Your task to perform on an android device: Go to calendar. Show me events next week Image 0: 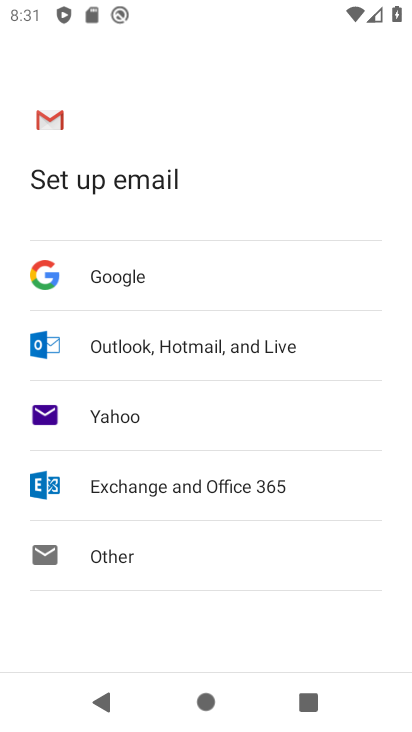
Step 0: press home button
Your task to perform on an android device: Go to calendar. Show me events next week Image 1: 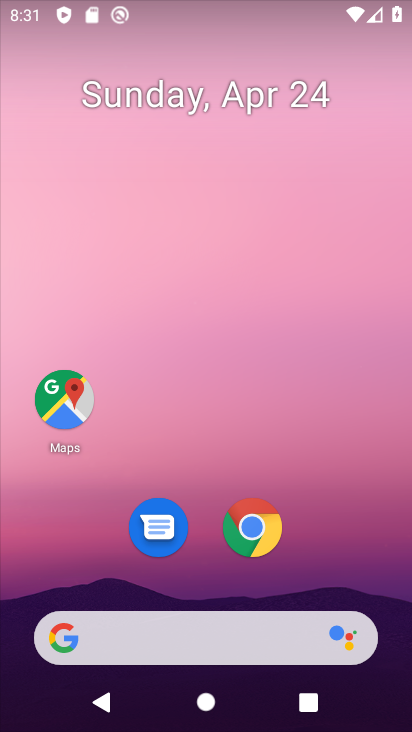
Step 1: drag from (389, 504) to (396, 4)
Your task to perform on an android device: Go to calendar. Show me events next week Image 2: 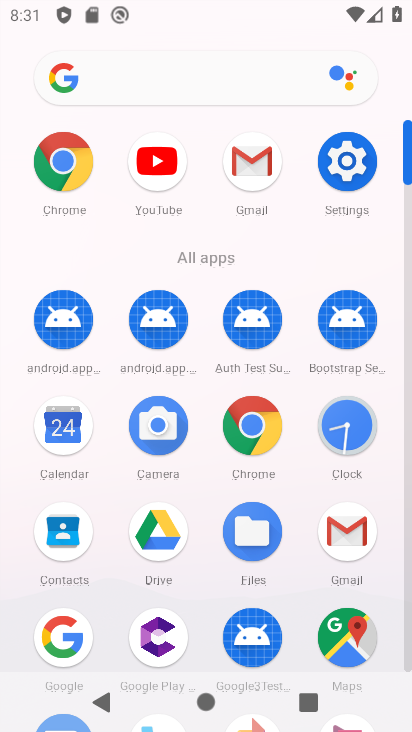
Step 2: click (44, 437)
Your task to perform on an android device: Go to calendar. Show me events next week Image 3: 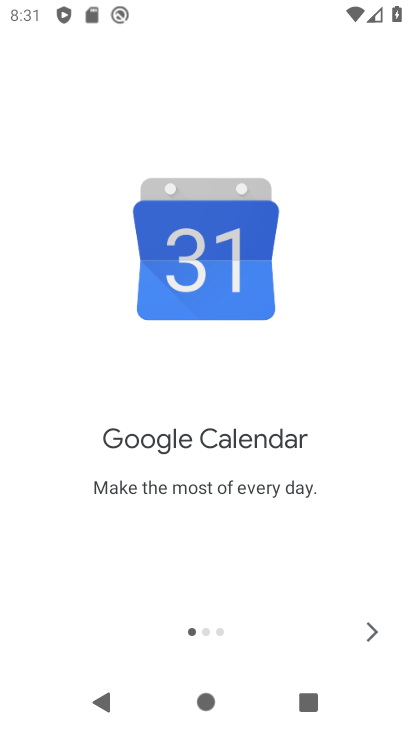
Step 3: click (376, 638)
Your task to perform on an android device: Go to calendar. Show me events next week Image 4: 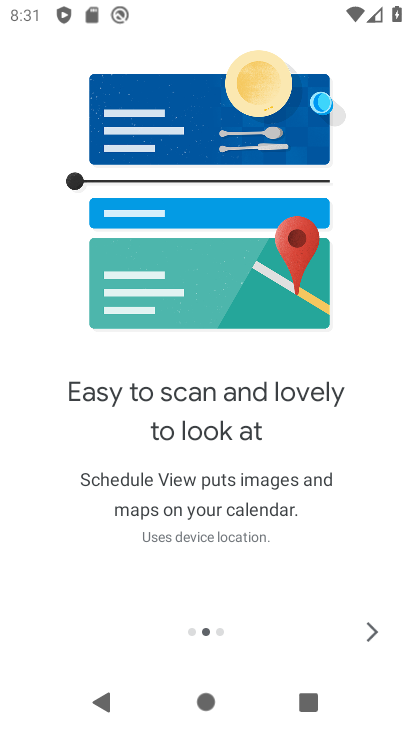
Step 4: click (376, 638)
Your task to perform on an android device: Go to calendar. Show me events next week Image 5: 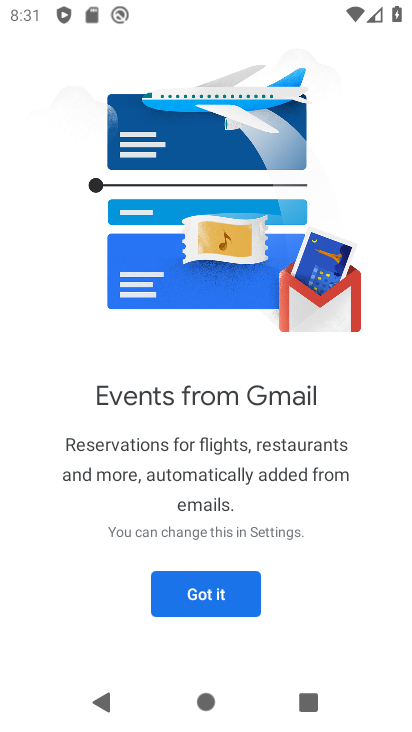
Step 5: click (179, 605)
Your task to perform on an android device: Go to calendar. Show me events next week Image 6: 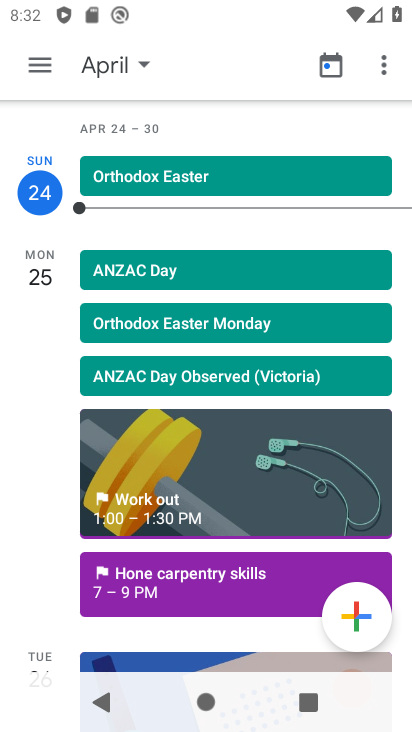
Step 6: click (144, 66)
Your task to perform on an android device: Go to calendar. Show me events next week Image 7: 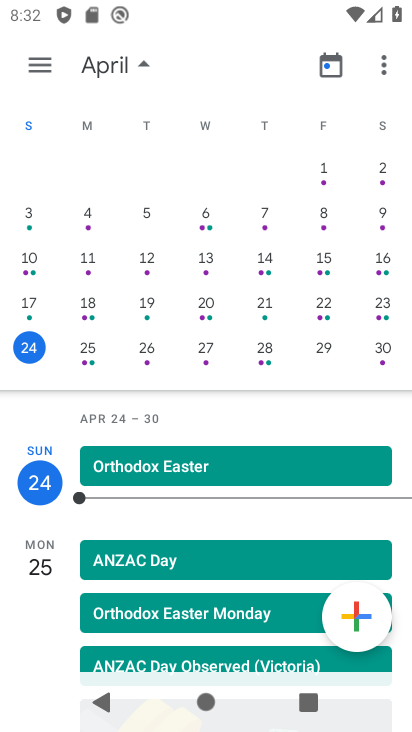
Step 7: click (38, 63)
Your task to perform on an android device: Go to calendar. Show me events next week Image 8: 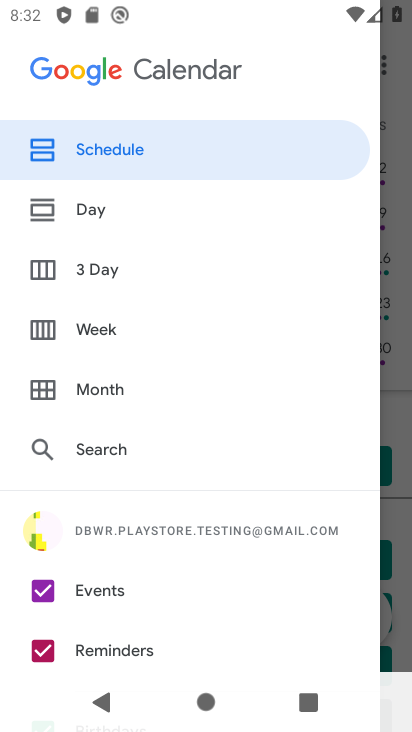
Step 8: drag from (142, 595) to (149, 306)
Your task to perform on an android device: Go to calendar. Show me events next week Image 9: 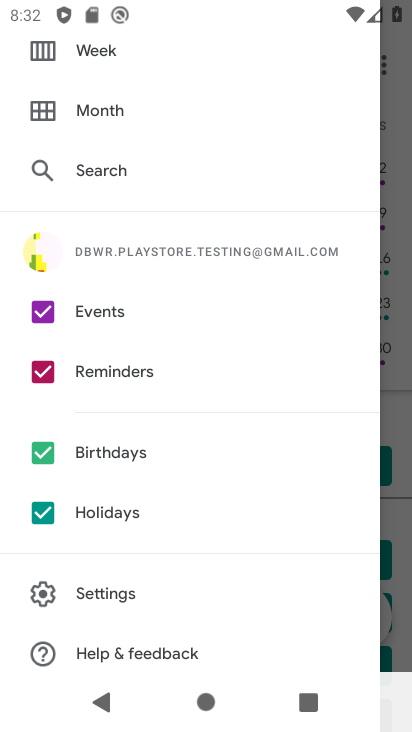
Step 9: click (45, 365)
Your task to perform on an android device: Go to calendar. Show me events next week Image 10: 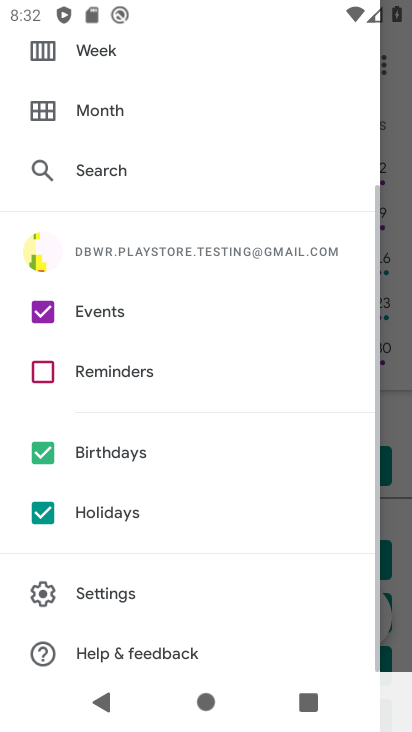
Step 10: click (37, 463)
Your task to perform on an android device: Go to calendar. Show me events next week Image 11: 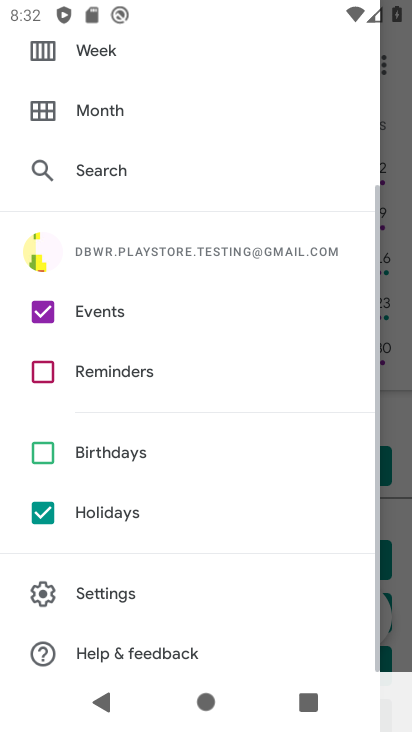
Step 11: click (41, 520)
Your task to perform on an android device: Go to calendar. Show me events next week Image 12: 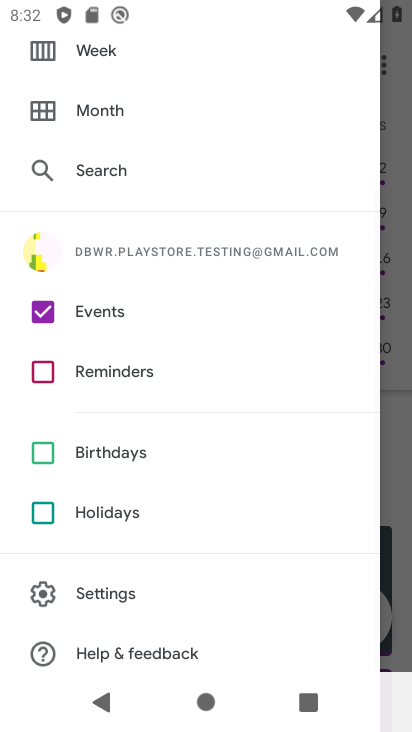
Step 12: click (66, 50)
Your task to perform on an android device: Go to calendar. Show me events next week Image 13: 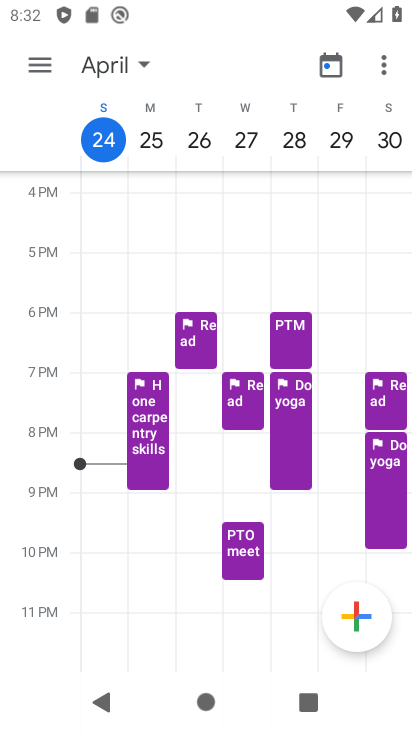
Step 13: task complete